Your task to perform on an android device: Open Amazon Image 0: 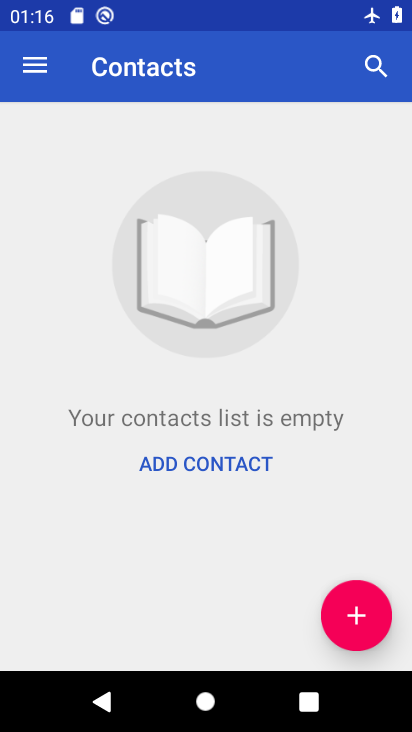
Step 0: press home button
Your task to perform on an android device: Open Amazon Image 1: 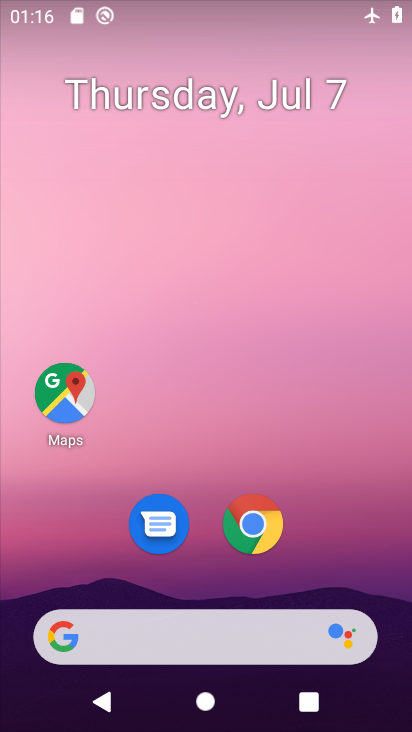
Step 1: click (251, 520)
Your task to perform on an android device: Open Amazon Image 2: 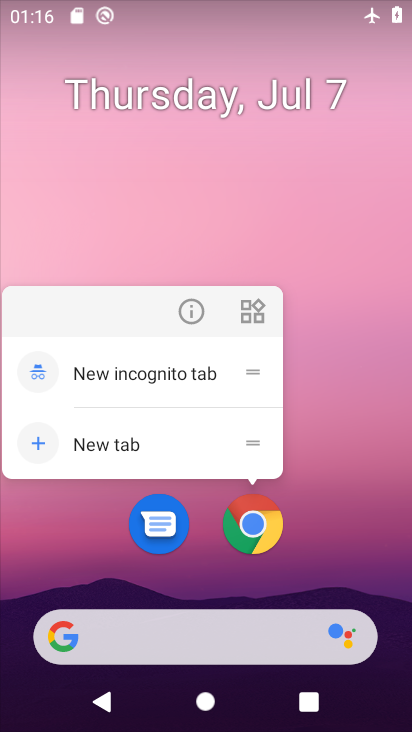
Step 2: click (251, 520)
Your task to perform on an android device: Open Amazon Image 3: 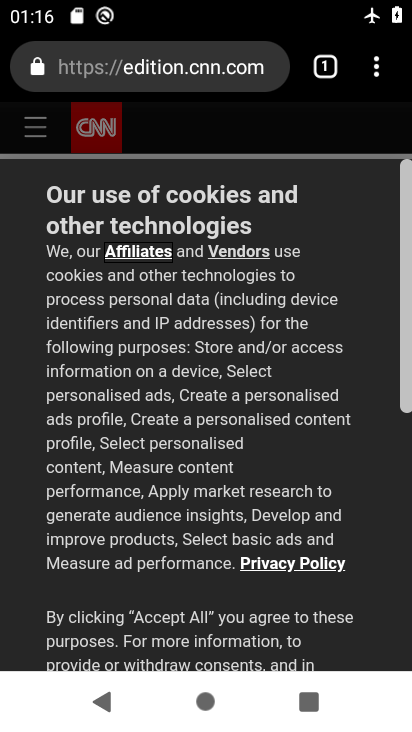
Step 3: click (379, 74)
Your task to perform on an android device: Open Amazon Image 4: 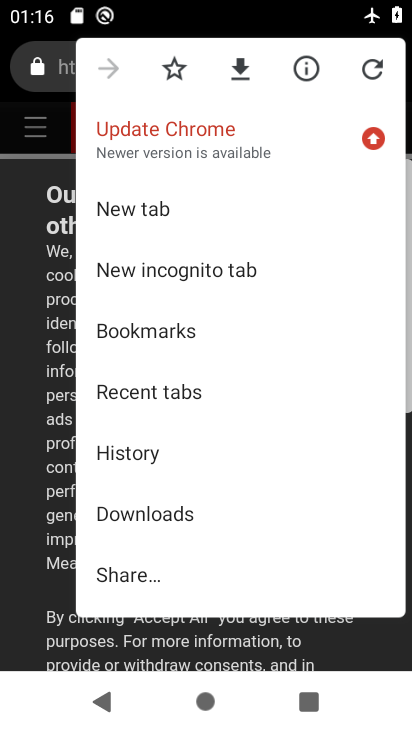
Step 4: click (243, 214)
Your task to perform on an android device: Open Amazon Image 5: 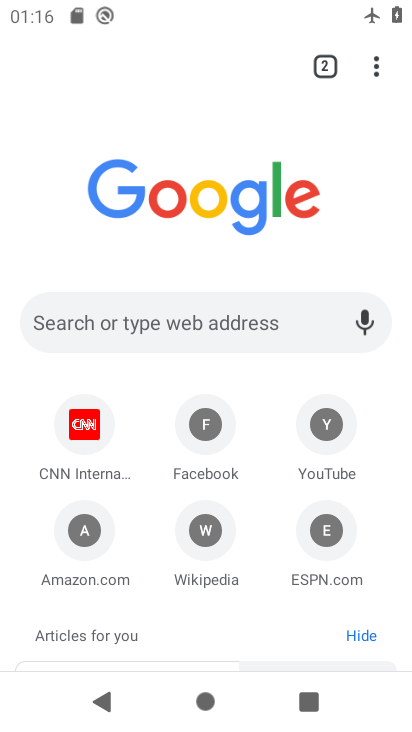
Step 5: click (80, 527)
Your task to perform on an android device: Open Amazon Image 6: 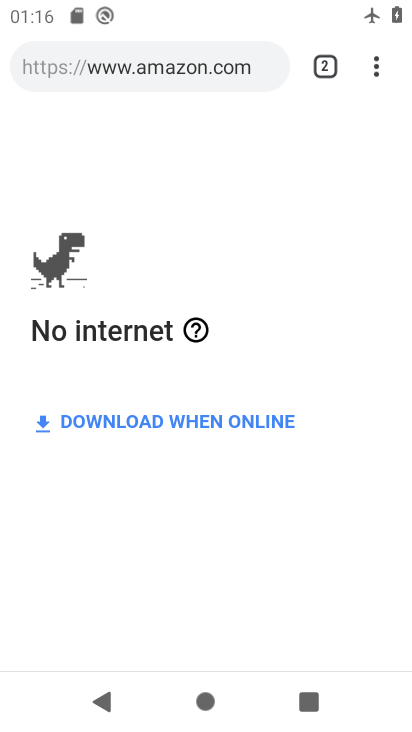
Step 6: task complete